Your task to perform on an android device: all mails in gmail Image 0: 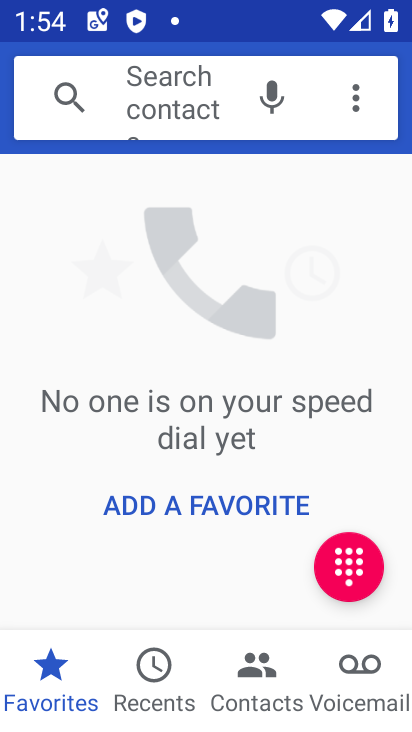
Step 0: press home button
Your task to perform on an android device: all mails in gmail Image 1: 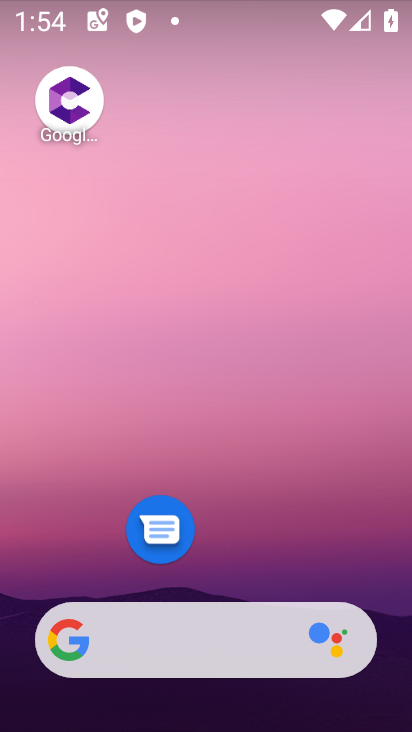
Step 1: drag from (181, 598) to (111, 3)
Your task to perform on an android device: all mails in gmail Image 2: 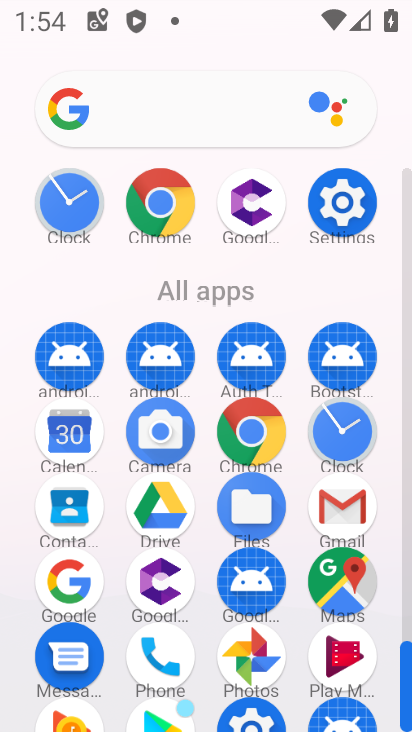
Step 2: click (338, 497)
Your task to perform on an android device: all mails in gmail Image 3: 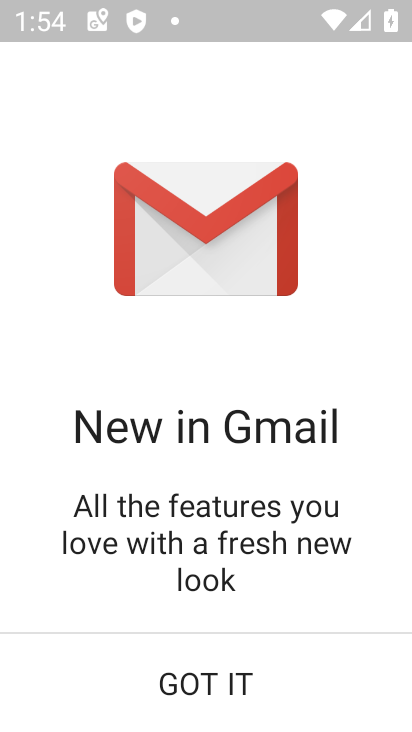
Step 3: click (201, 692)
Your task to perform on an android device: all mails in gmail Image 4: 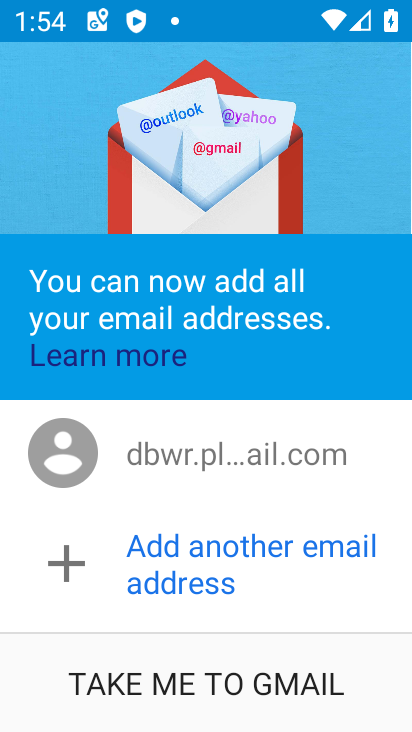
Step 4: click (201, 692)
Your task to perform on an android device: all mails in gmail Image 5: 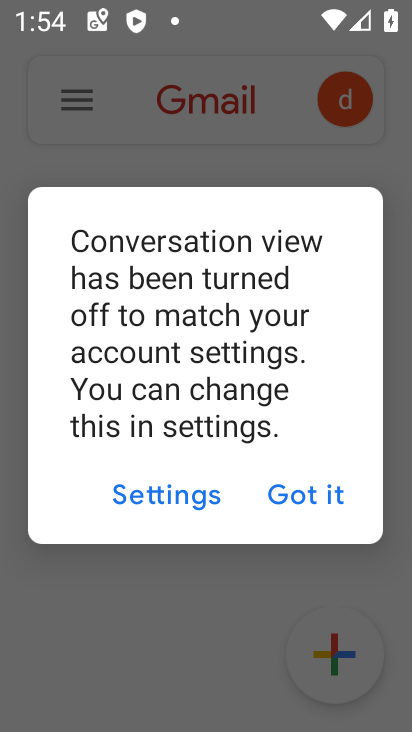
Step 5: click (304, 498)
Your task to perform on an android device: all mails in gmail Image 6: 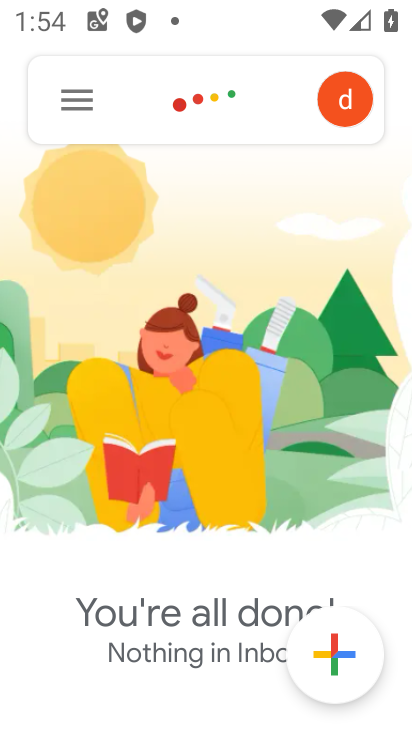
Step 6: click (64, 94)
Your task to perform on an android device: all mails in gmail Image 7: 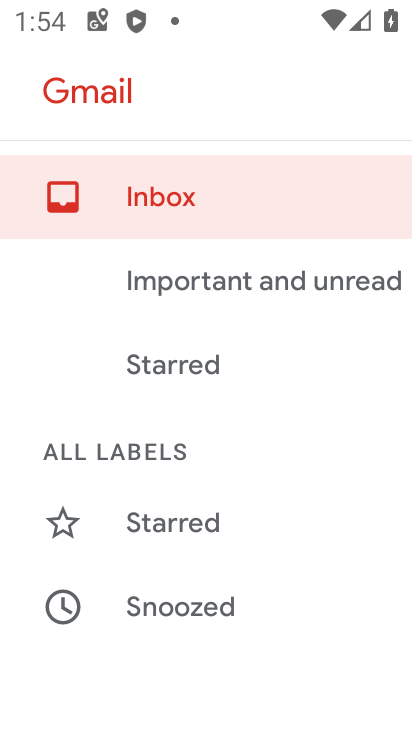
Step 7: drag from (161, 512) to (114, 132)
Your task to perform on an android device: all mails in gmail Image 8: 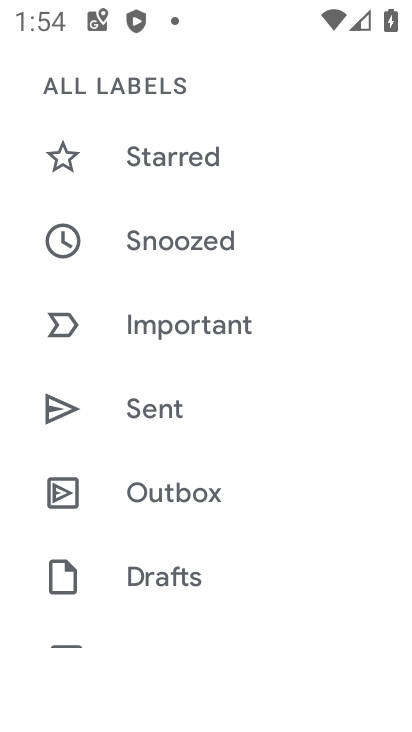
Step 8: drag from (158, 490) to (144, 168)
Your task to perform on an android device: all mails in gmail Image 9: 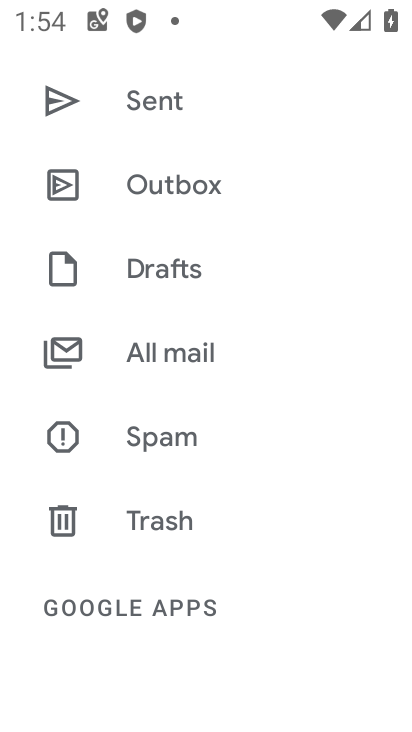
Step 9: click (175, 344)
Your task to perform on an android device: all mails in gmail Image 10: 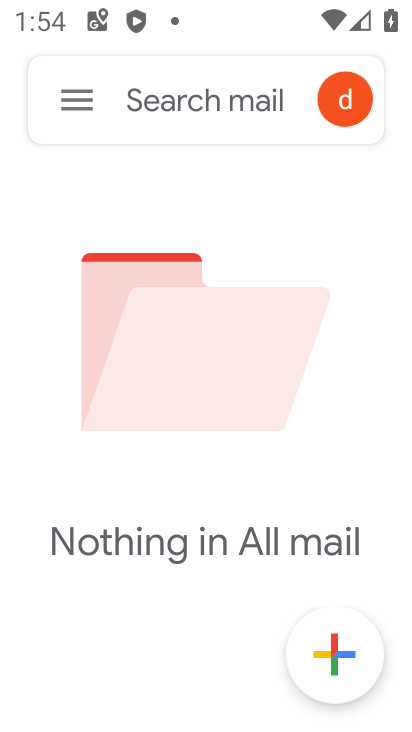
Step 10: task complete